Your task to perform on an android device: What's on my calendar today? Image 0: 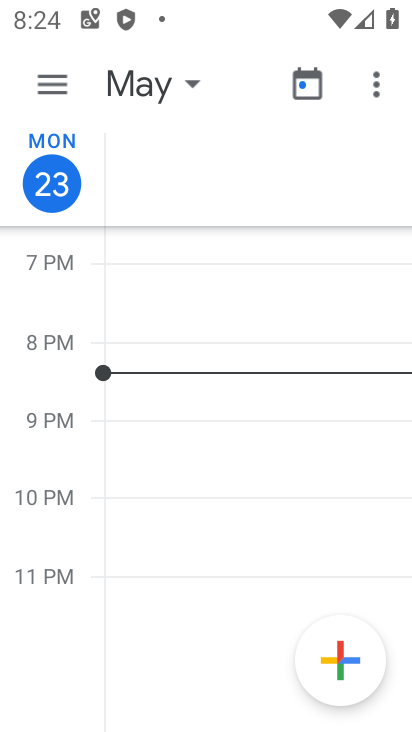
Step 0: drag from (322, 556) to (241, 179)
Your task to perform on an android device: What's on my calendar today? Image 1: 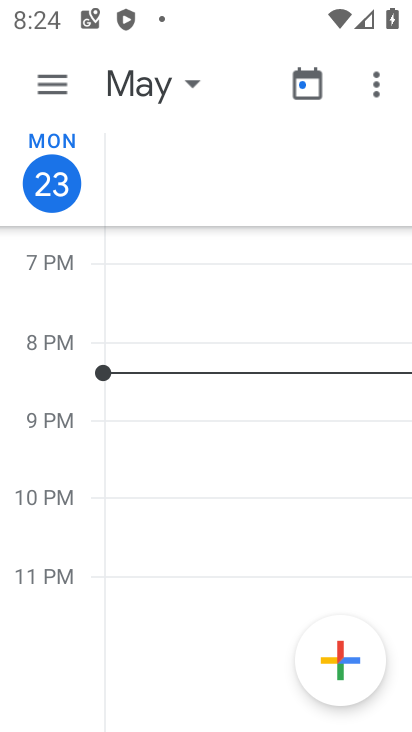
Step 1: task complete